Your task to perform on an android device: Go to CNN.com Image 0: 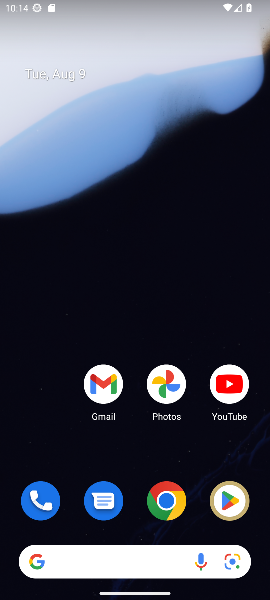
Step 0: click (168, 502)
Your task to perform on an android device: Go to CNN.com Image 1: 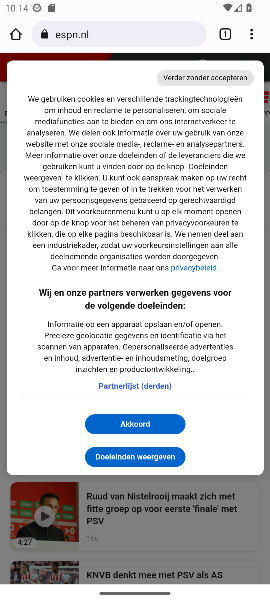
Step 1: click (79, 37)
Your task to perform on an android device: Go to CNN.com Image 2: 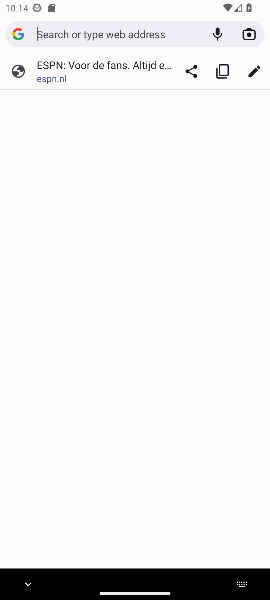
Step 2: type "www.cnn.com"
Your task to perform on an android device: Go to CNN.com Image 3: 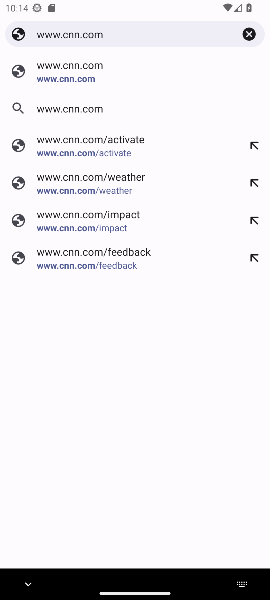
Step 3: click (53, 75)
Your task to perform on an android device: Go to CNN.com Image 4: 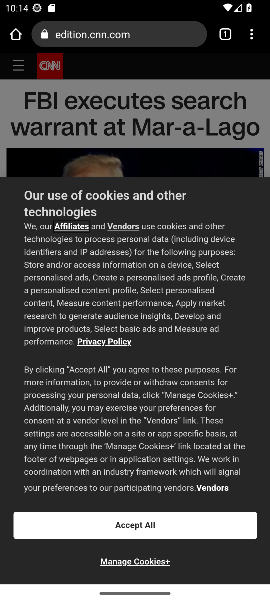
Step 4: task complete